Your task to perform on an android device: change keyboard looks Image 0: 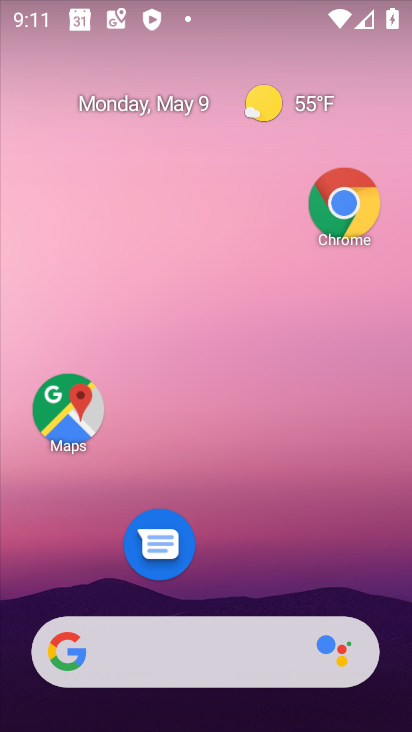
Step 0: drag from (235, 587) to (233, 139)
Your task to perform on an android device: change keyboard looks Image 1: 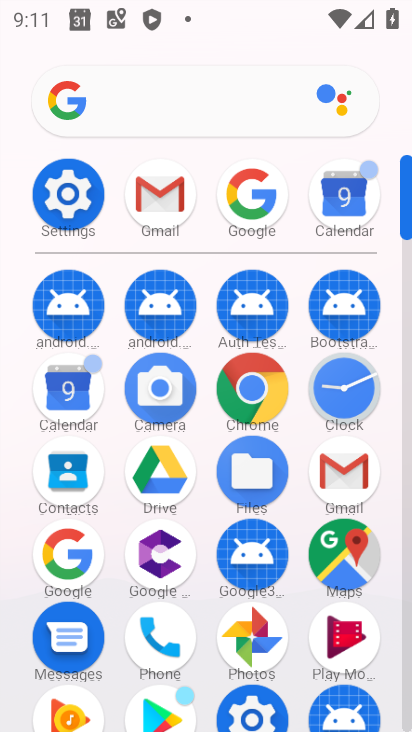
Step 1: click (81, 198)
Your task to perform on an android device: change keyboard looks Image 2: 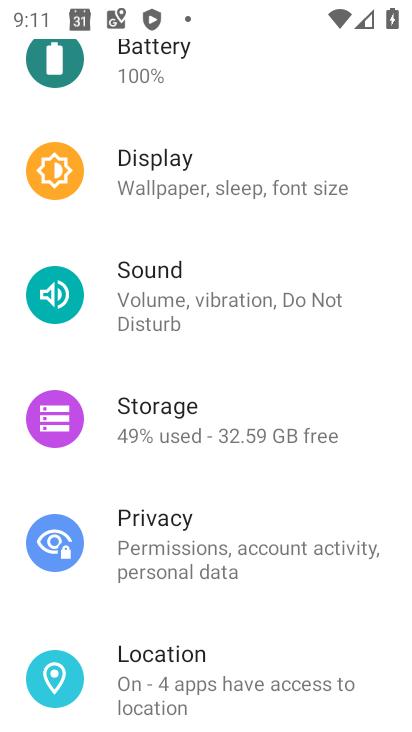
Step 2: drag from (170, 566) to (224, 200)
Your task to perform on an android device: change keyboard looks Image 3: 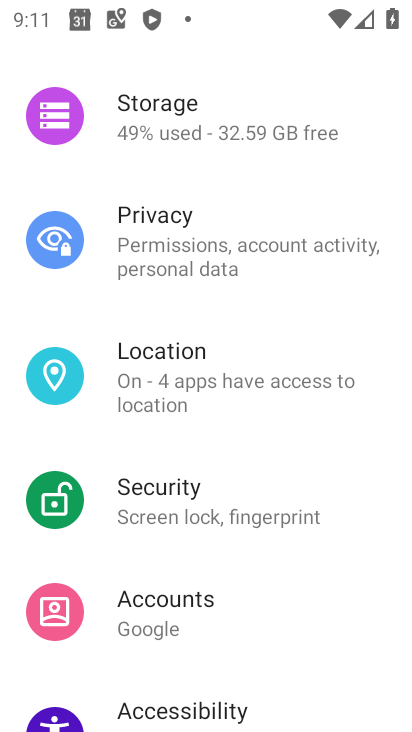
Step 3: drag from (220, 637) to (233, 218)
Your task to perform on an android device: change keyboard looks Image 4: 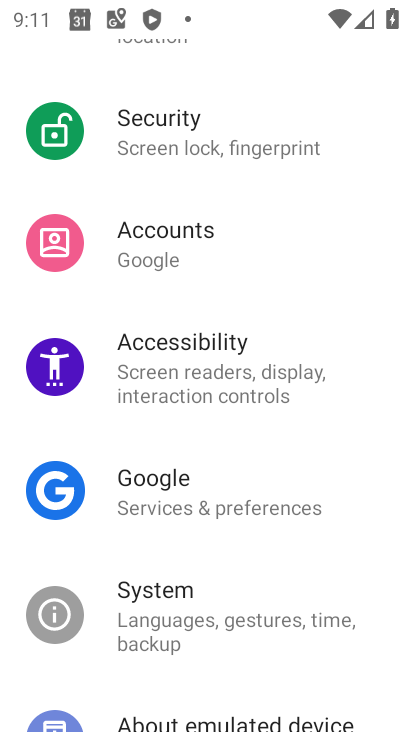
Step 4: click (212, 647)
Your task to perform on an android device: change keyboard looks Image 5: 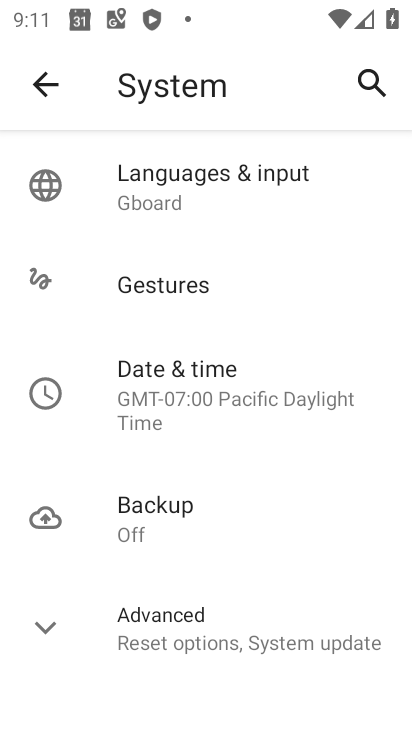
Step 5: click (197, 216)
Your task to perform on an android device: change keyboard looks Image 6: 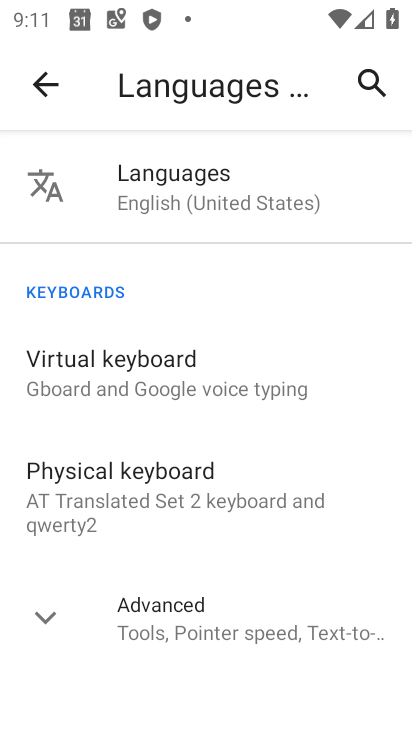
Step 6: click (169, 347)
Your task to perform on an android device: change keyboard looks Image 7: 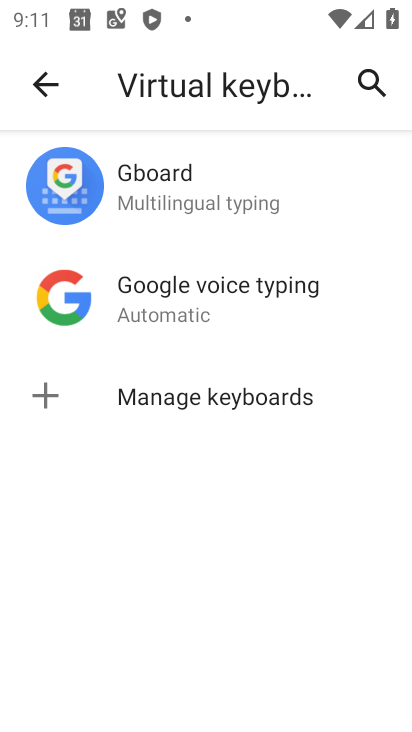
Step 7: click (125, 199)
Your task to perform on an android device: change keyboard looks Image 8: 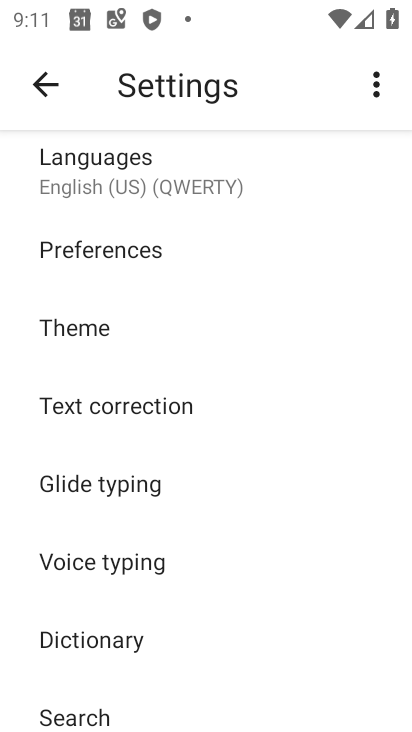
Step 8: click (101, 313)
Your task to perform on an android device: change keyboard looks Image 9: 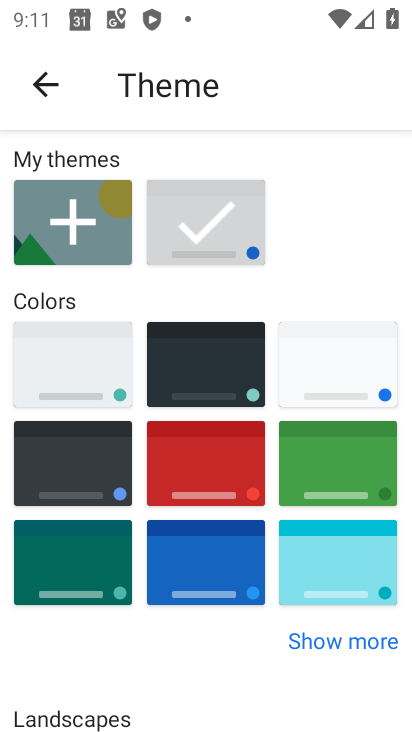
Step 9: click (300, 372)
Your task to perform on an android device: change keyboard looks Image 10: 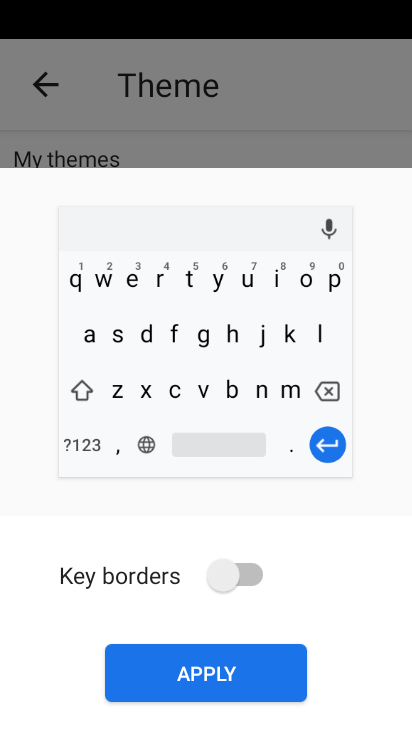
Step 10: click (263, 673)
Your task to perform on an android device: change keyboard looks Image 11: 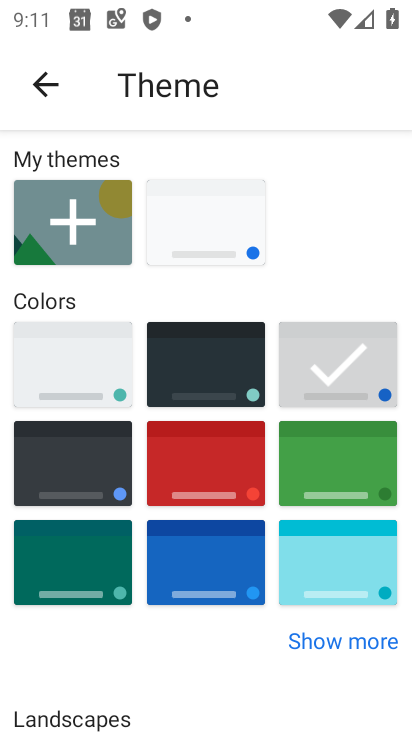
Step 11: task complete